Your task to perform on an android device: uninstall "DoorDash - Food Delivery" Image 0: 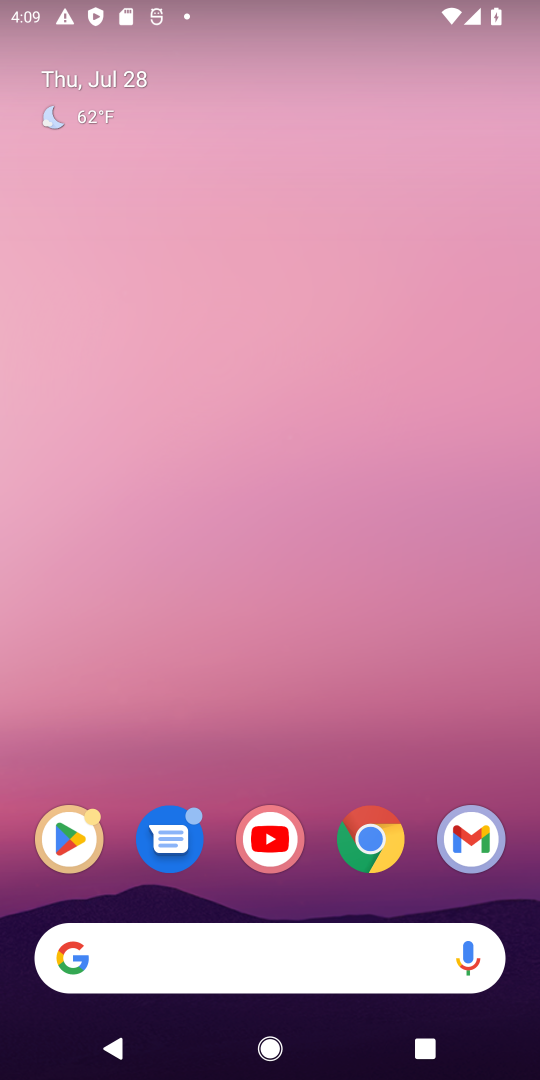
Step 0: drag from (335, 669) to (127, 137)
Your task to perform on an android device: uninstall "DoorDash - Food Delivery" Image 1: 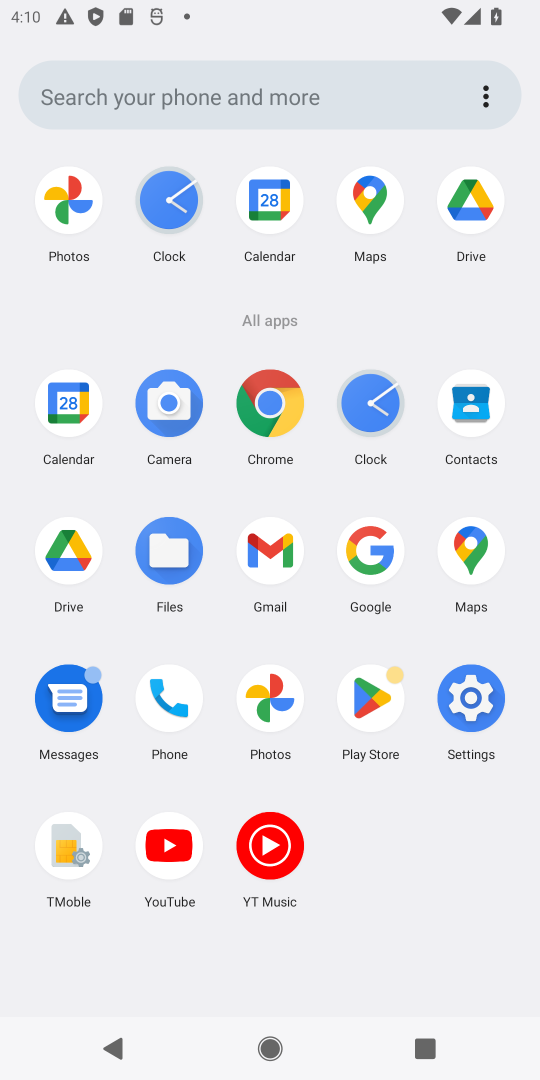
Step 1: click (378, 692)
Your task to perform on an android device: uninstall "DoorDash - Food Delivery" Image 2: 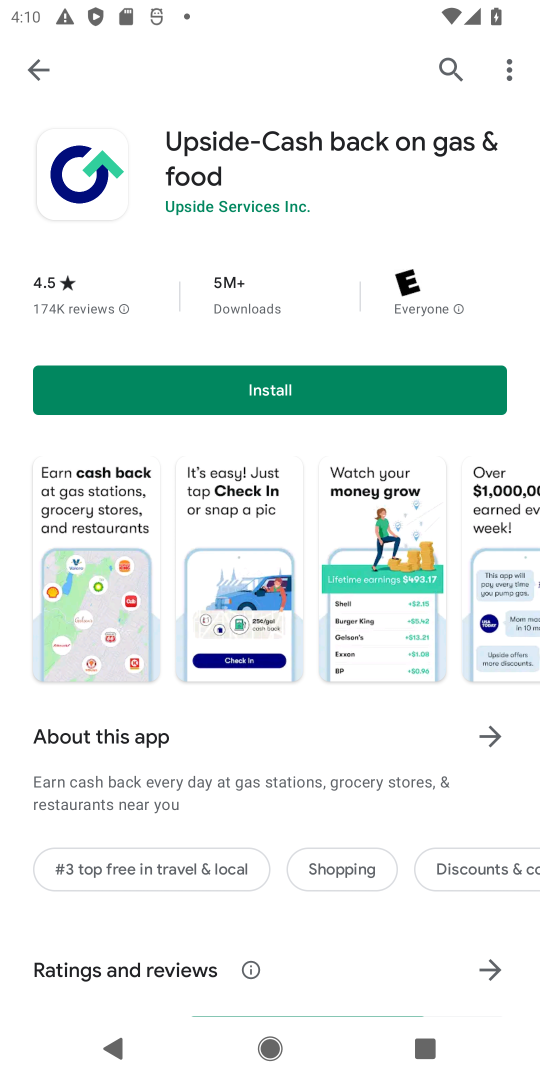
Step 2: press back button
Your task to perform on an android device: uninstall "DoorDash - Food Delivery" Image 3: 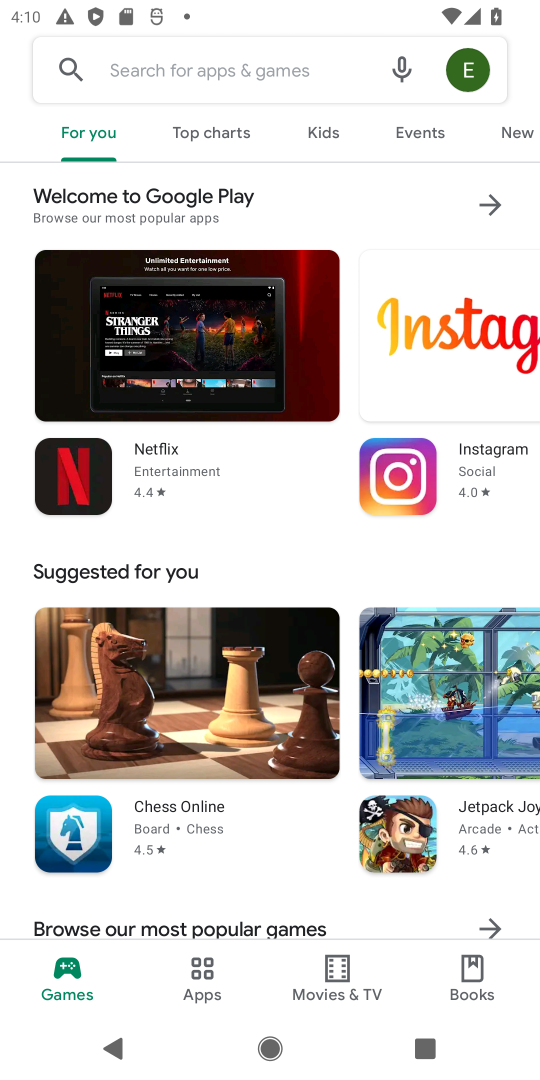
Step 3: click (176, 73)
Your task to perform on an android device: uninstall "DoorDash - Food Delivery" Image 4: 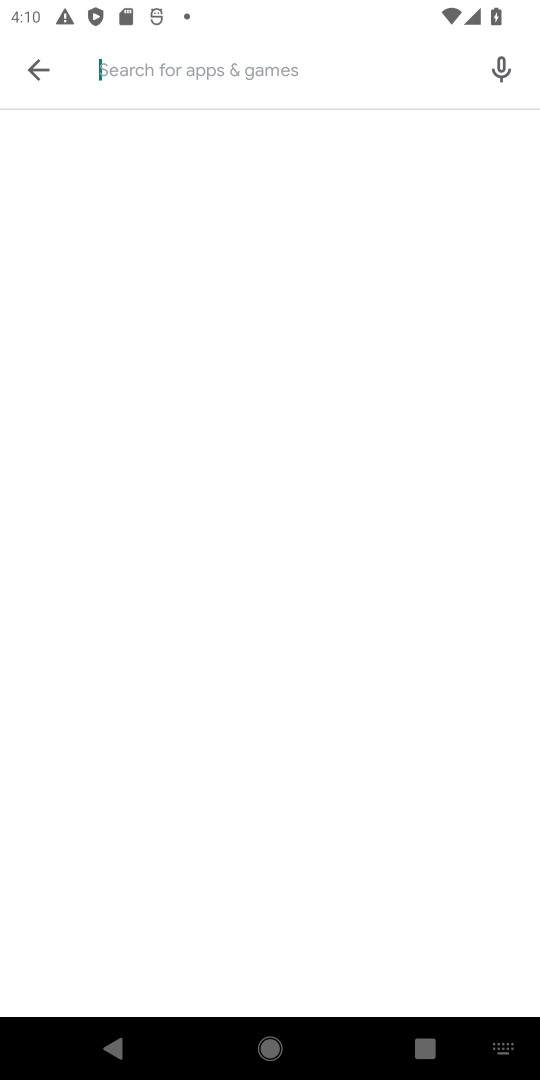
Step 4: type "DoorDash - Food Delivery"
Your task to perform on an android device: uninstall "DoorDash - Food Delivery" Image 5: 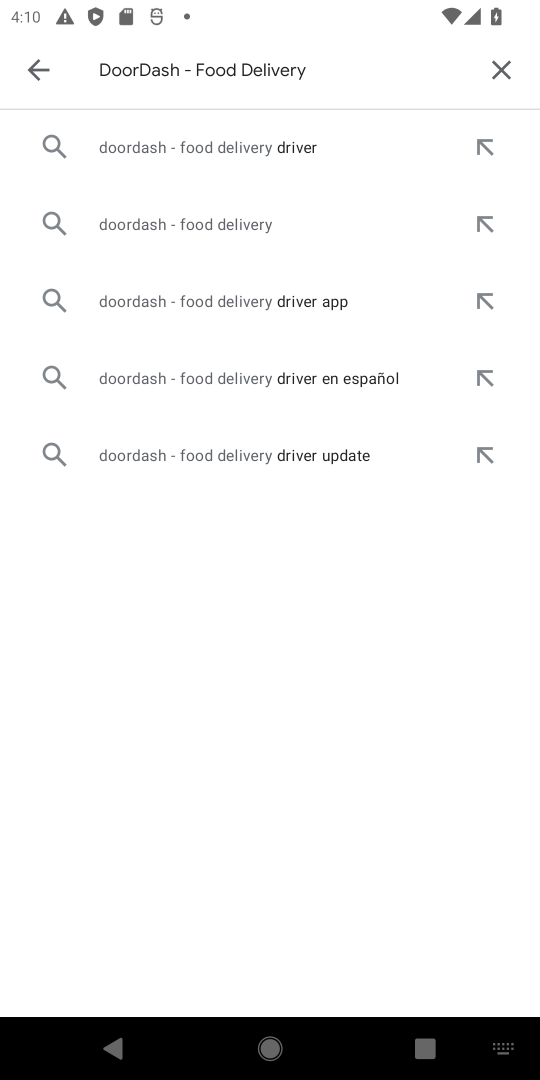
Step 5: click (173, 216)
Your task to perform on an android device: uninstall "DoorDash - Food Delivery" Image 6: 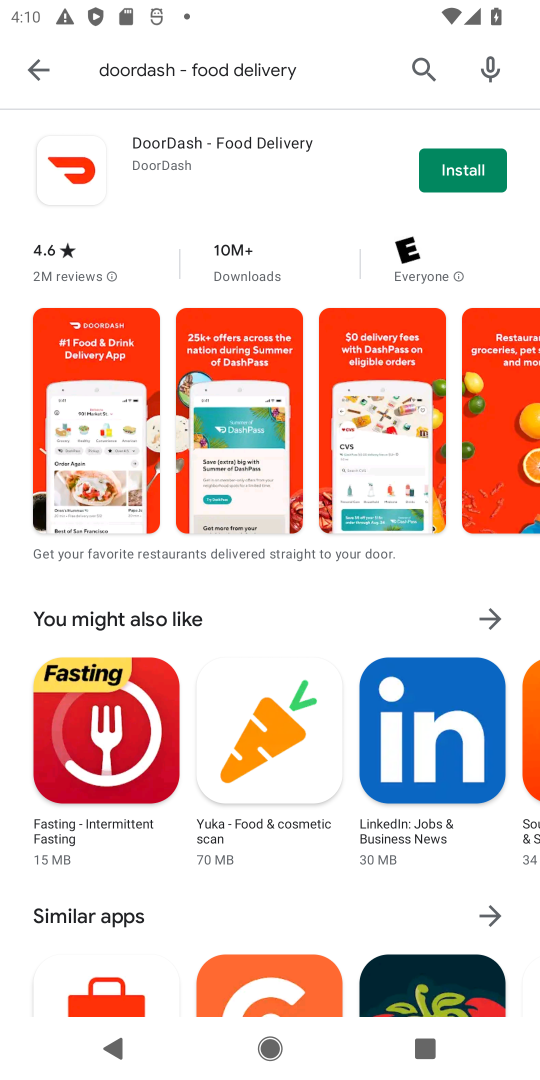
Step 6: task complete